Your task to perform on an android device: open app "Walmart Shopping & Grocery" (install if not already installed) Image 0: 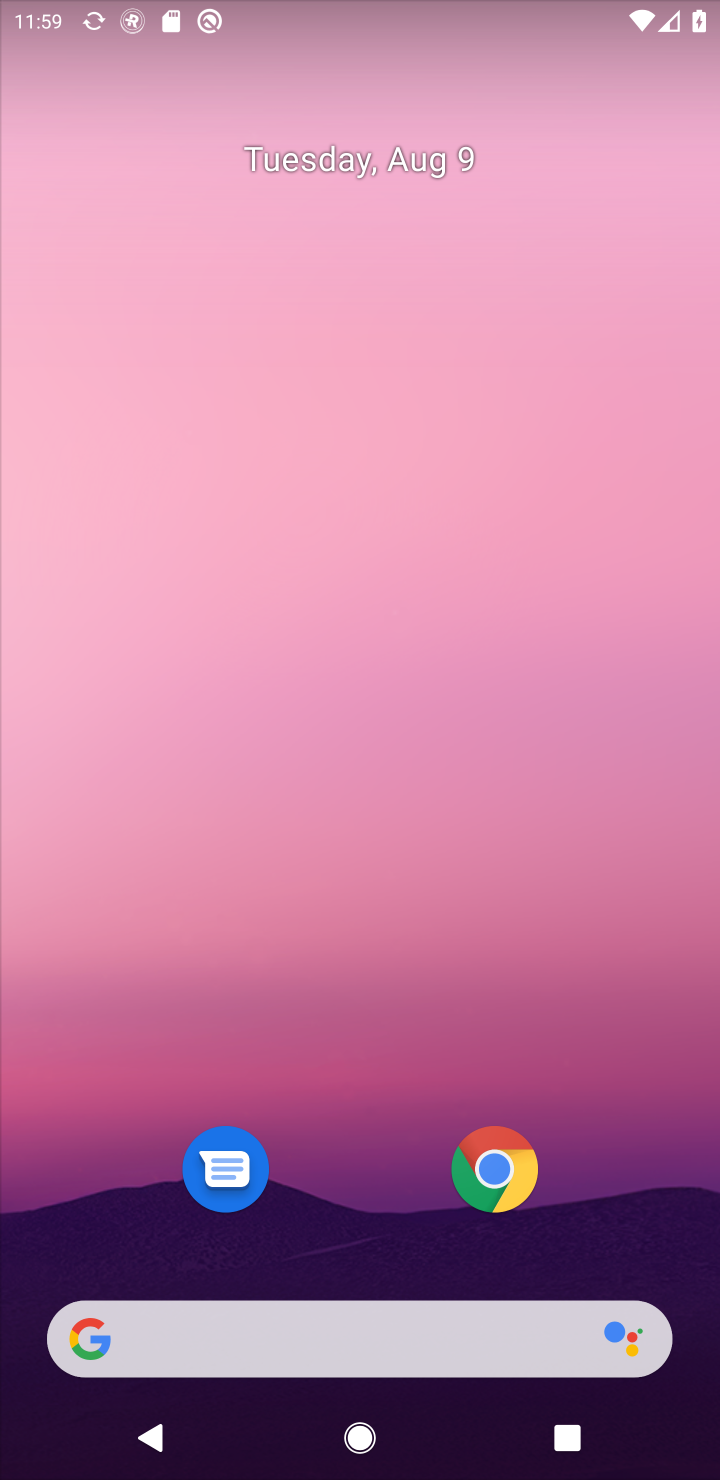
Step 0: press home button
Your task to perform on an android device: open app "Walmart Shopping & Grocery" (install if not already installed) Image 1: 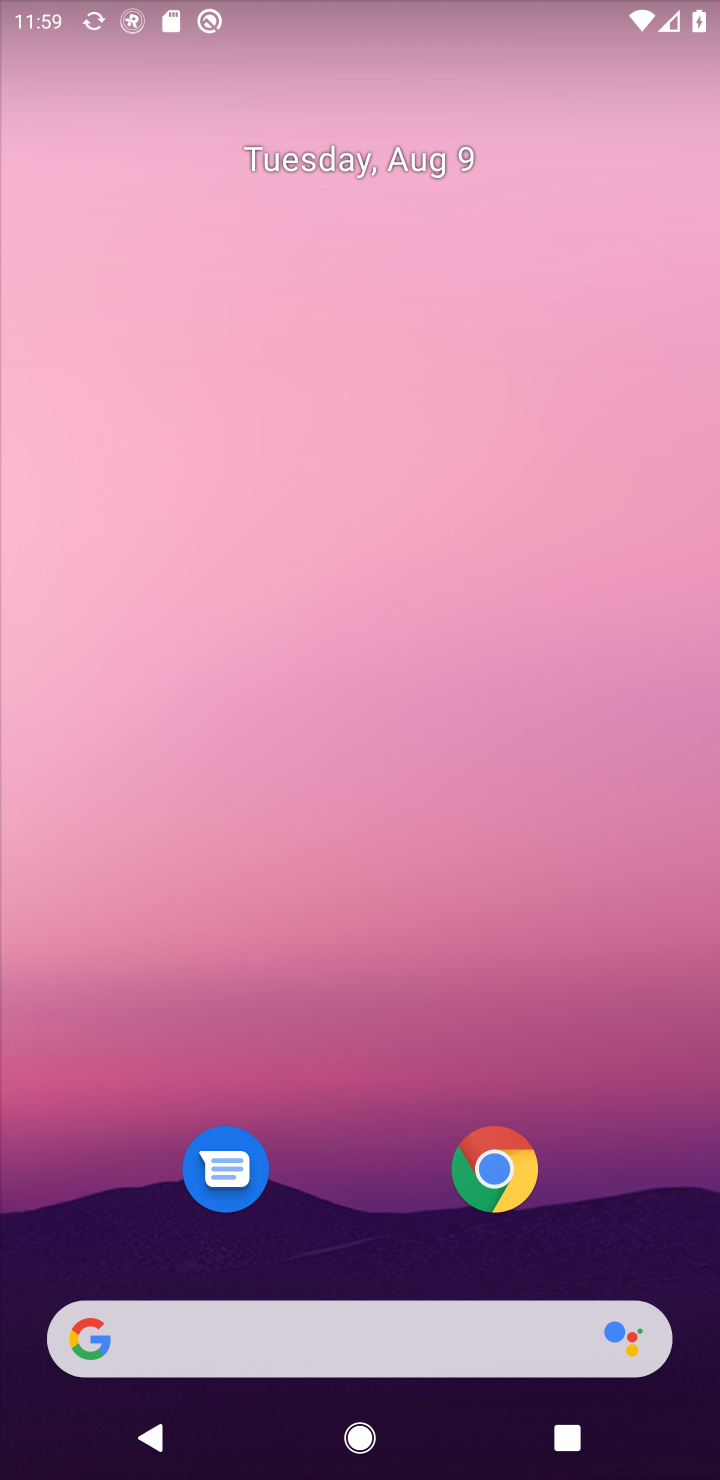
Step 1: drag from (635, 1219) to (659, 195)
Your task to perform on an android device: open app "Walmart Shopping & Grocery" (install if not already installed) Image 2: 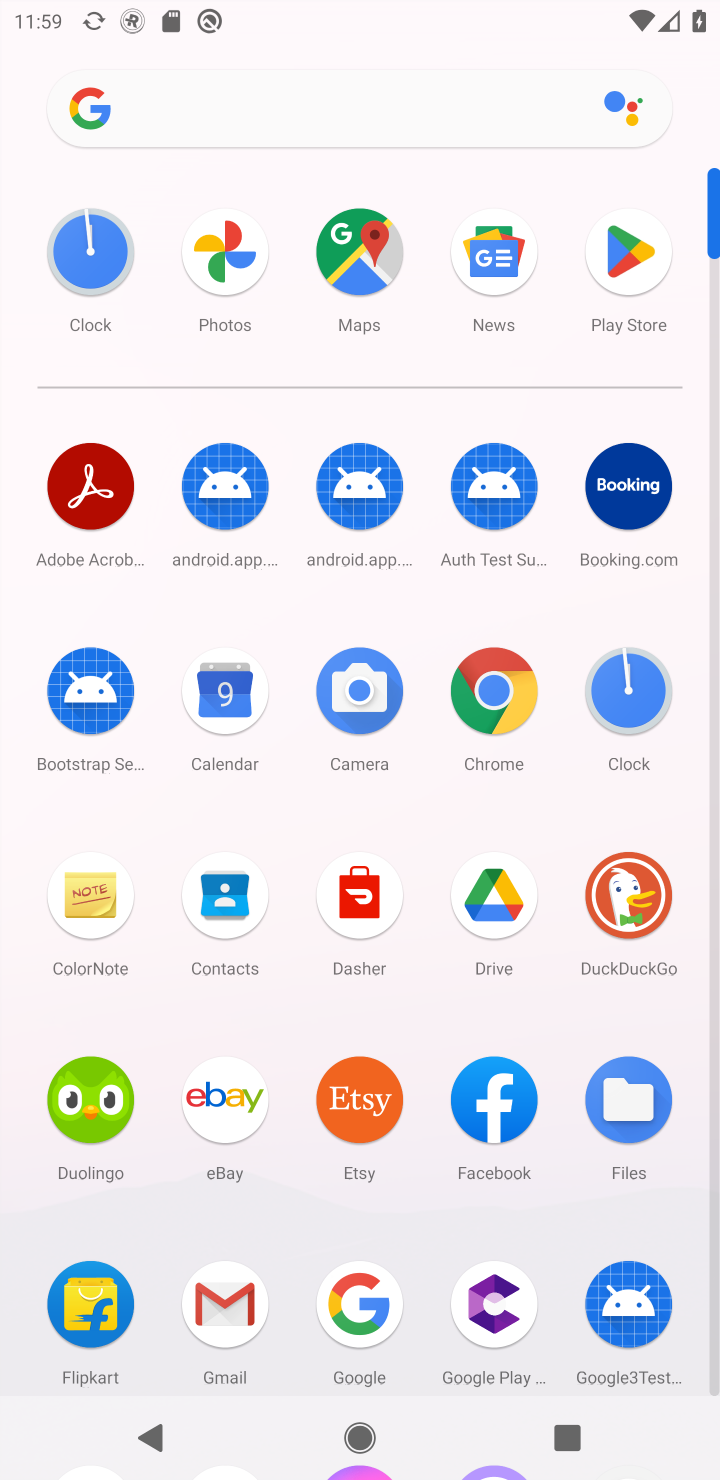
Step 2: click (634, 258)
Your task to perform on an android device: open app "Walmart Shopping & Grocery" (install if not already installed) Image 3: 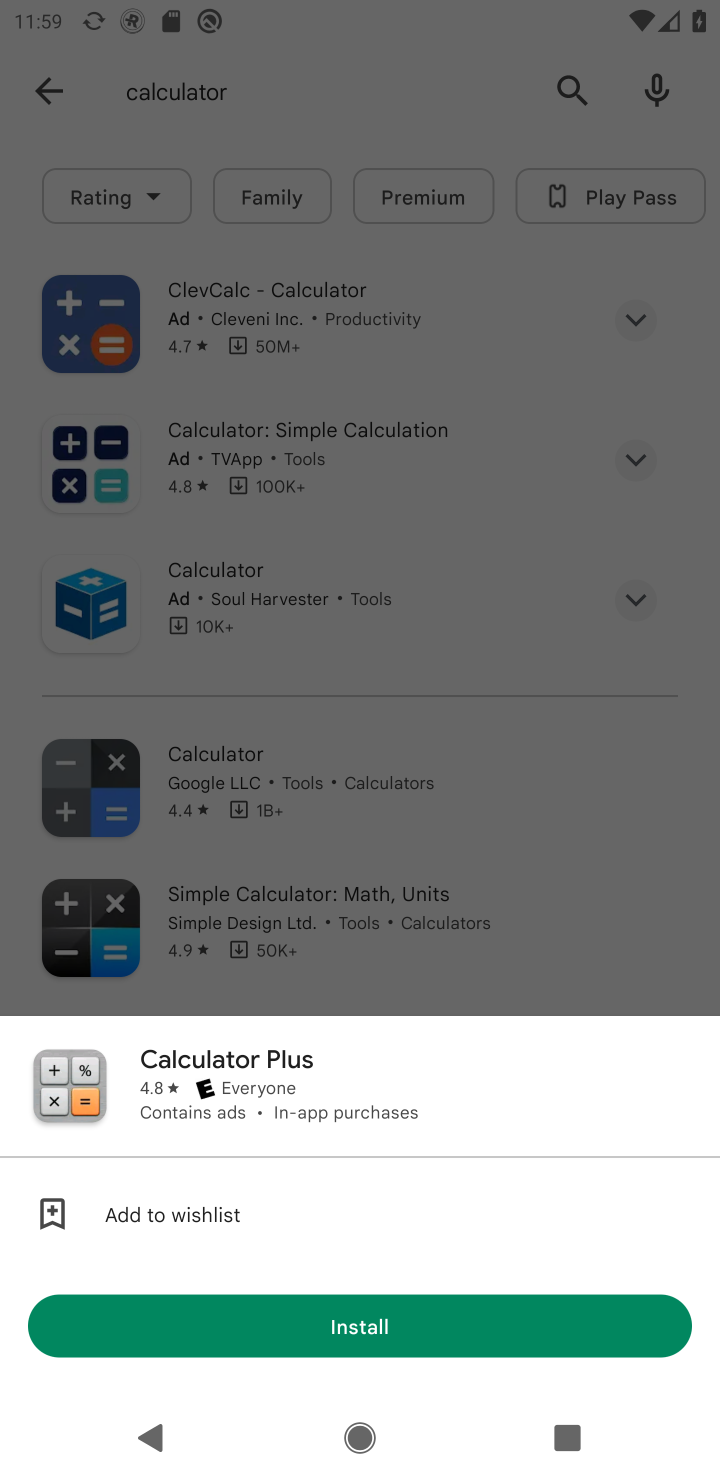
Step 3: press back button
Your task to perform on an android device: open app "Walmart Shopping & Grocery" (install if not already installed) Image 4: 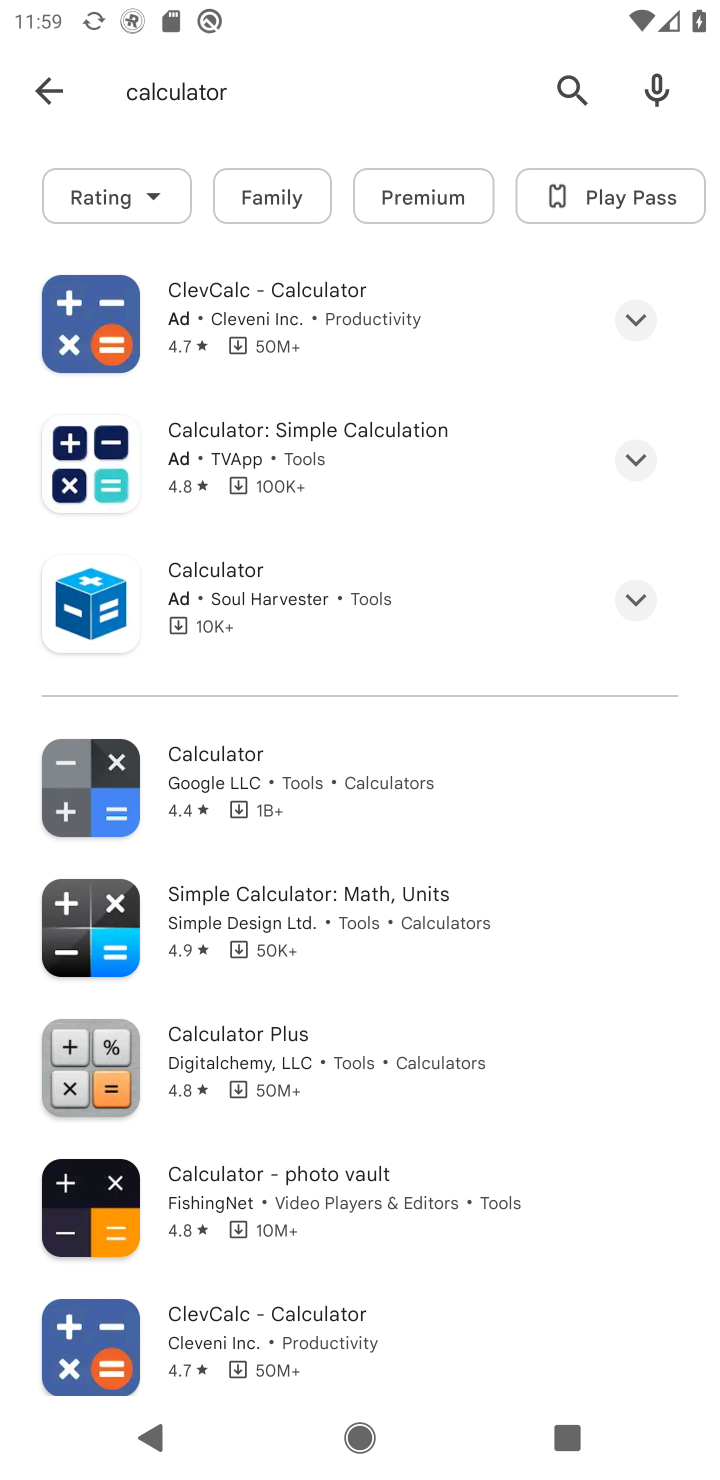
Step 4: click (567, 83)
Your task to perform on an android device: open app "Walmart Shopping & Grocery" (install if not already installed) Image 5: 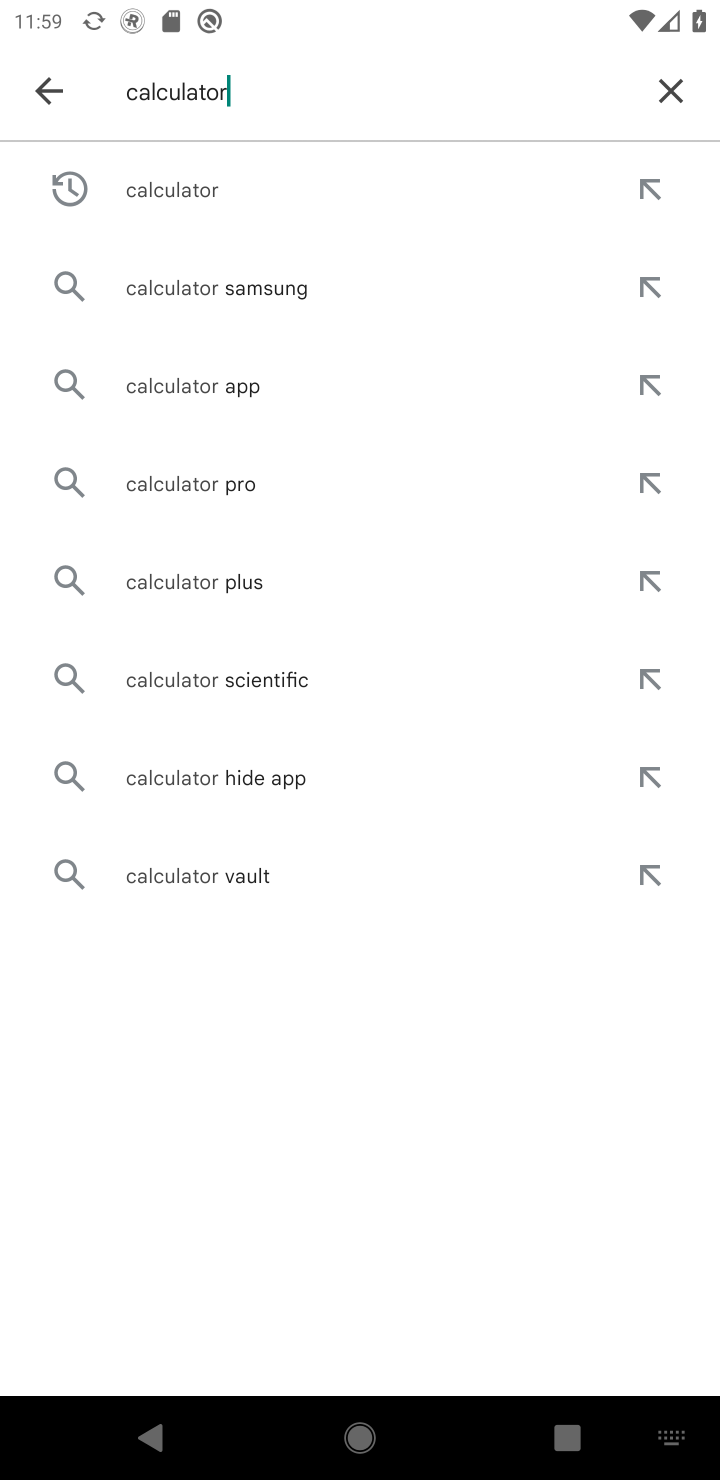
Step 5: click (676, 100)
Your task to perform on an android device: open app "Walmart Shopping & Grocery" (install if not already installed) Image 6: 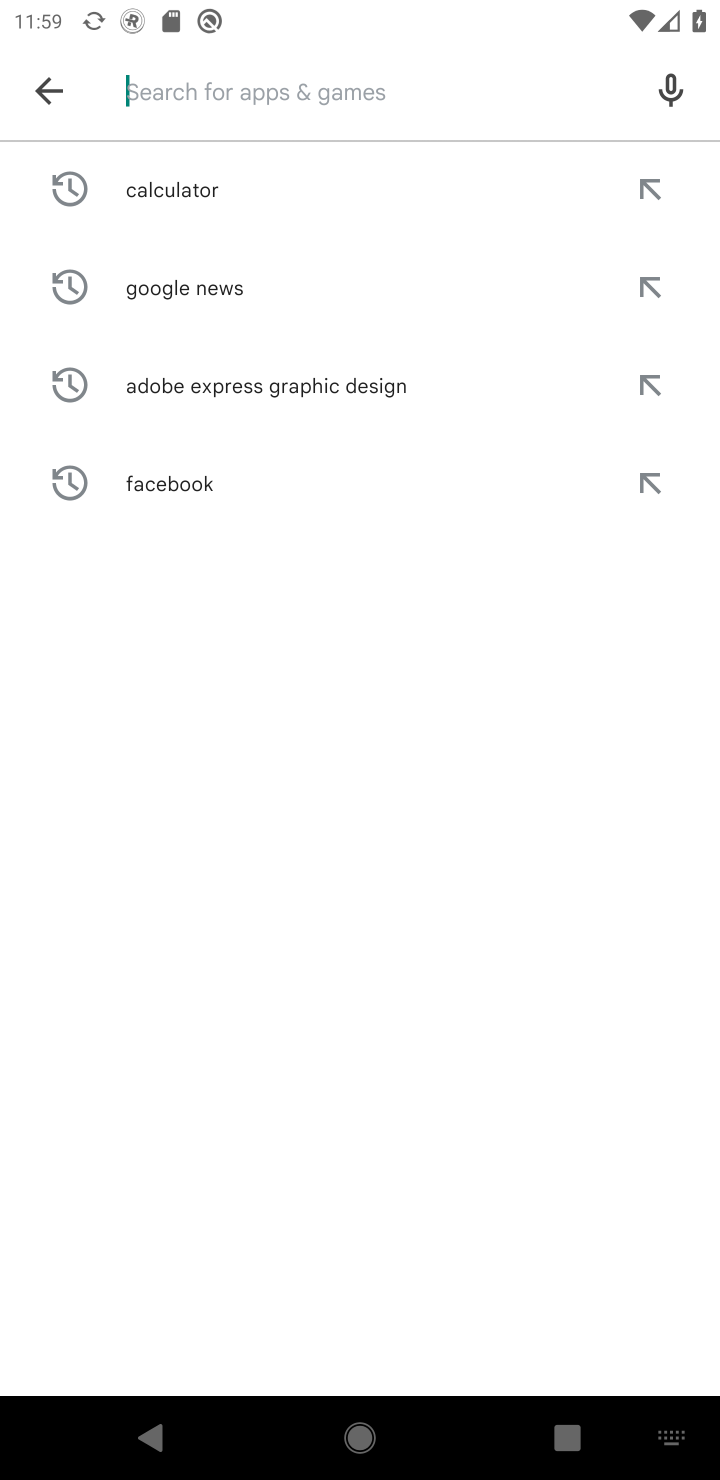
Step 6: type "Walmart Shopping & Grocery"
Your task to perform on an android device: open app "Walmart Shopping & Grocery" (install if not already installed) Image 7: 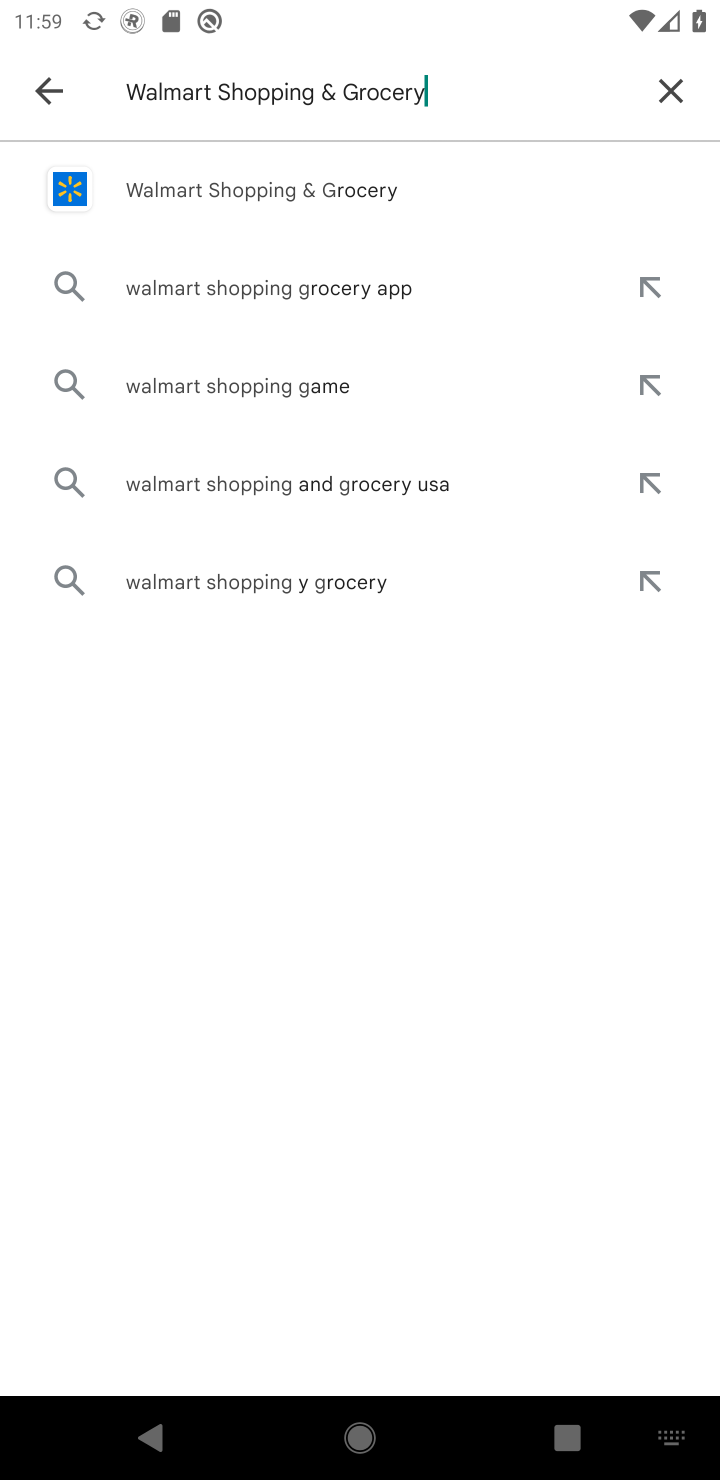
Step 7: press enter
Your task to perform on an android device: open app "Walmart Shopping & Grocery" (install if not already installed) Image 8: 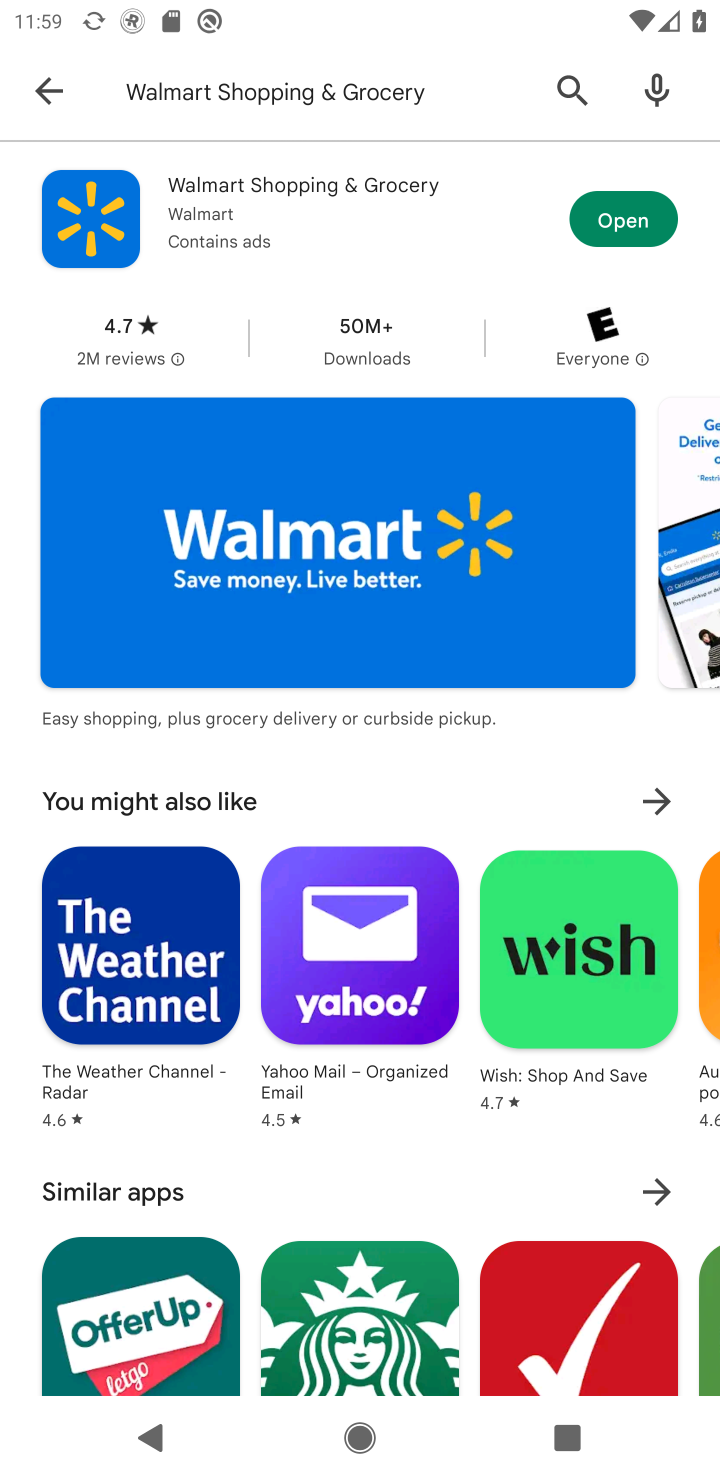
Step 8: click (637, 220)
Your task to perform on an android device: open app "Walmart Shopping & Grocery" (install if not already installed) Image 9: 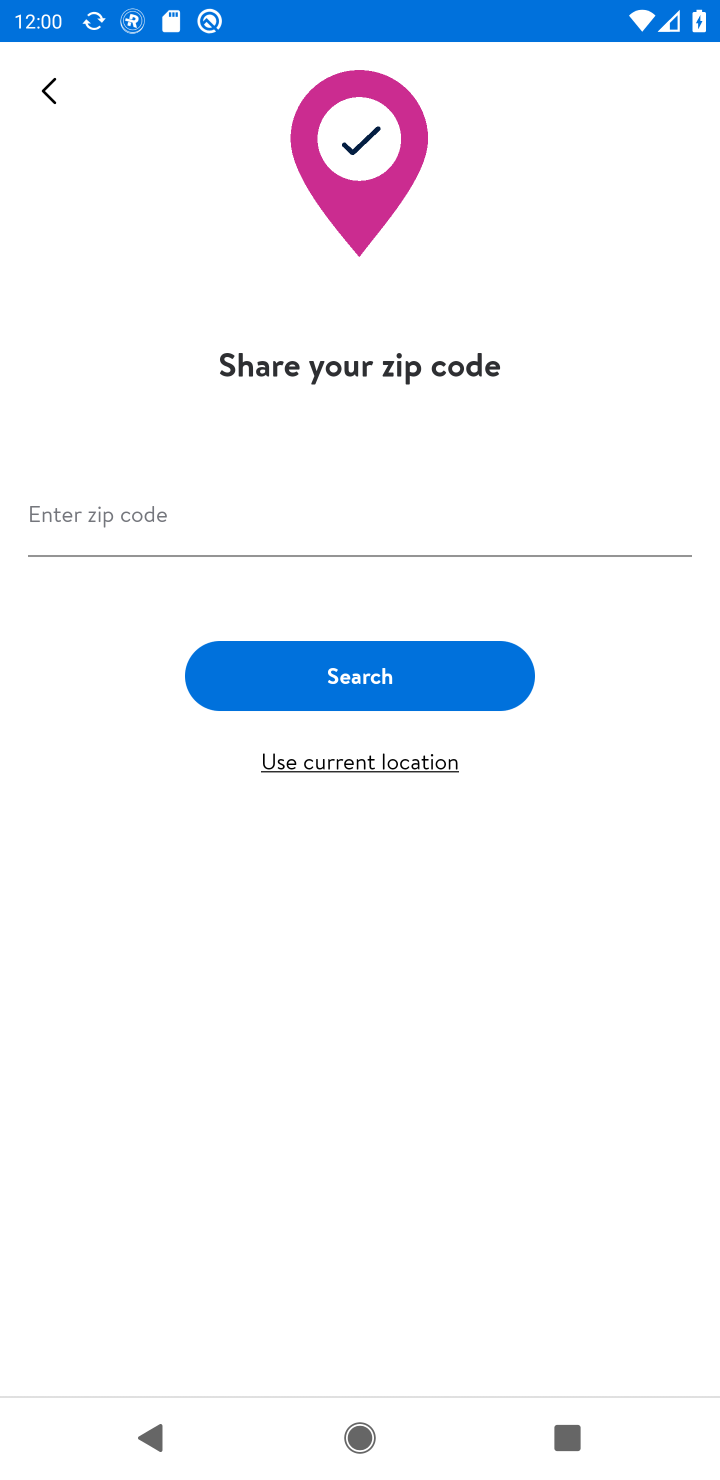
Step 9: task complete